Your task to perform on an android device: Open calendar and show me the first week of next month Image 0: 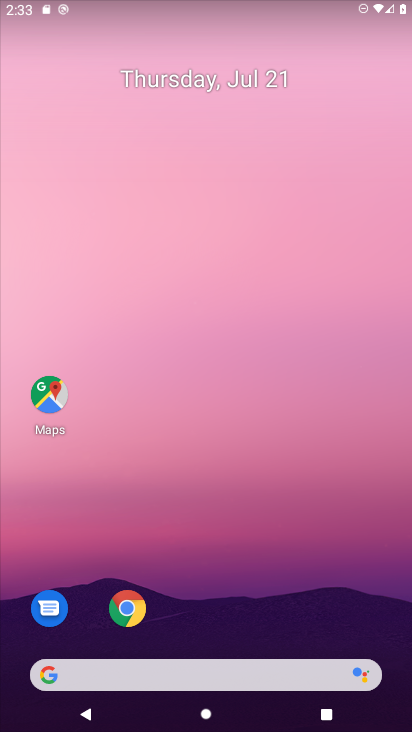
Step 0: drag from (210, 604) to (210, 120)
Your task to perform on an android device: Open calendar and show me the first week of next month Image 1: 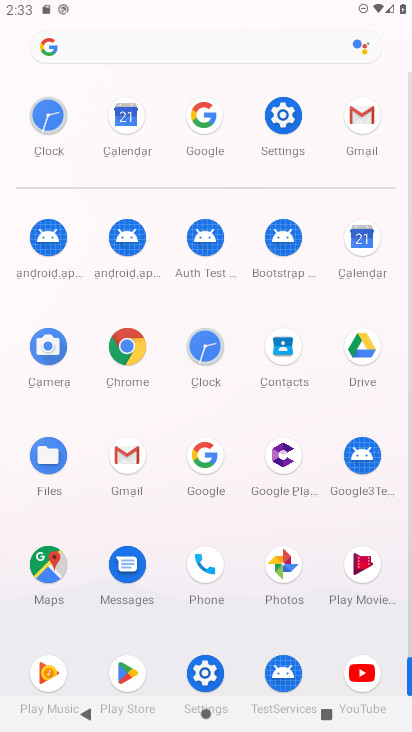
Step 1: click (117, 136)
Your task to perform on an android device: Open calendar and show me the first week of next month Image 2: 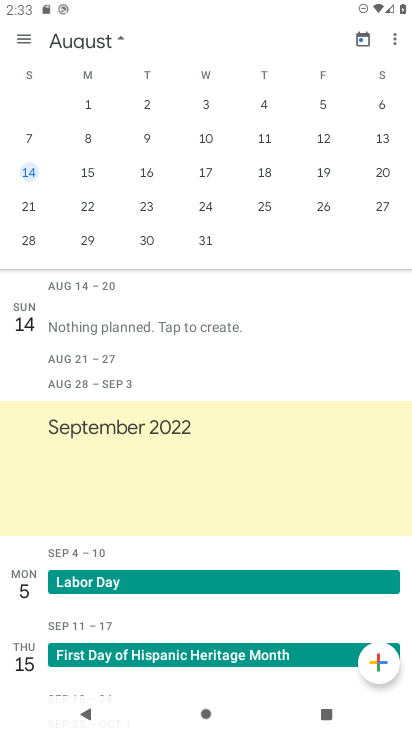
Step 2: click (80, 106)
Your task to perform on an android device: Open calendar and show me the first week of next month Image 3: 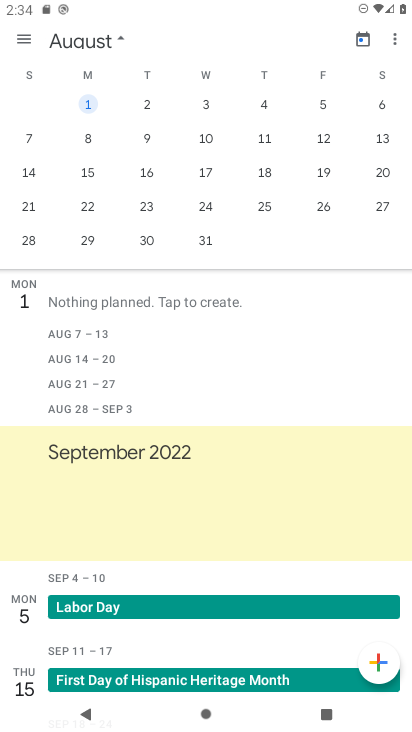
Step 3: task complete